Your task to perform on an android device: Open Youtube and go to "Your channel" Image 0: 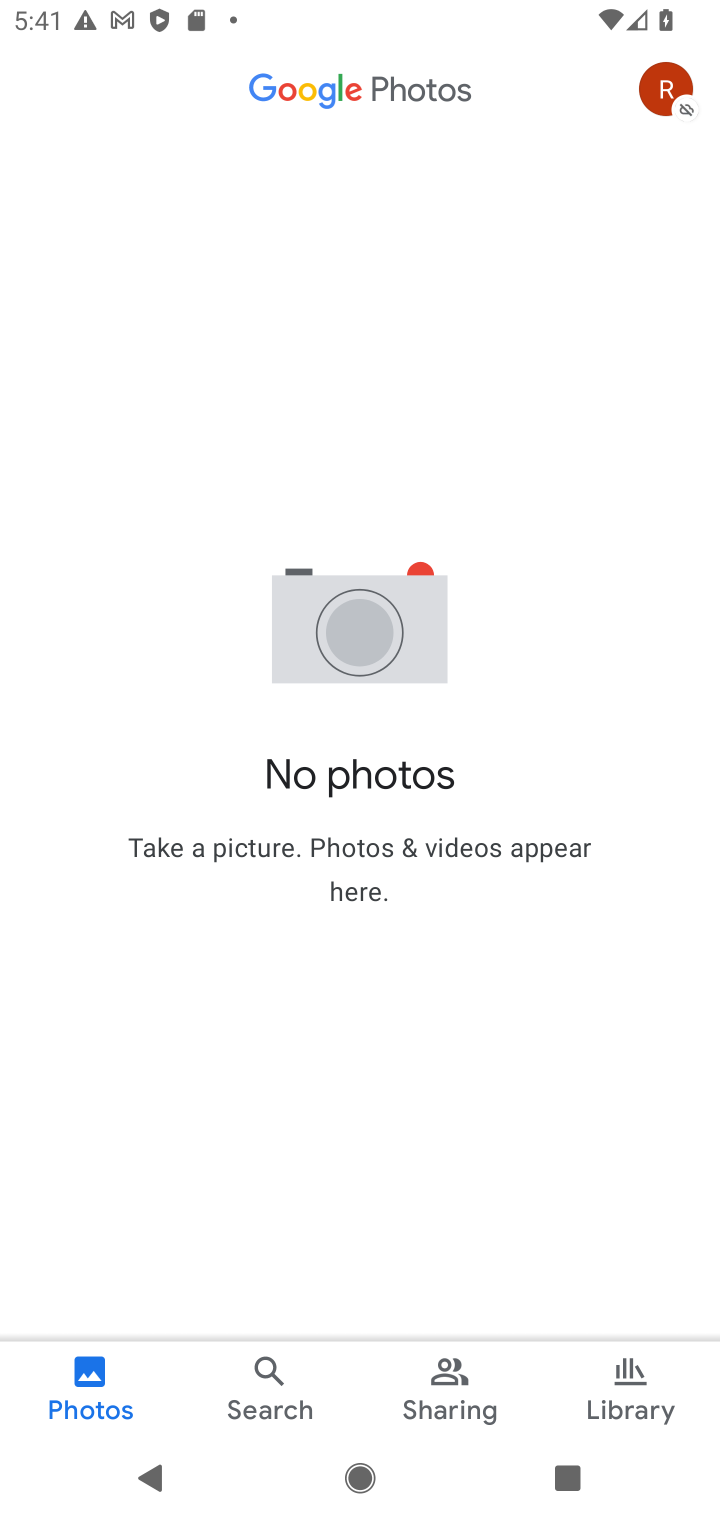
Step 0: press home button
Your task to perform on an android device: Open Youtube and go to "Your channel" Image 1: 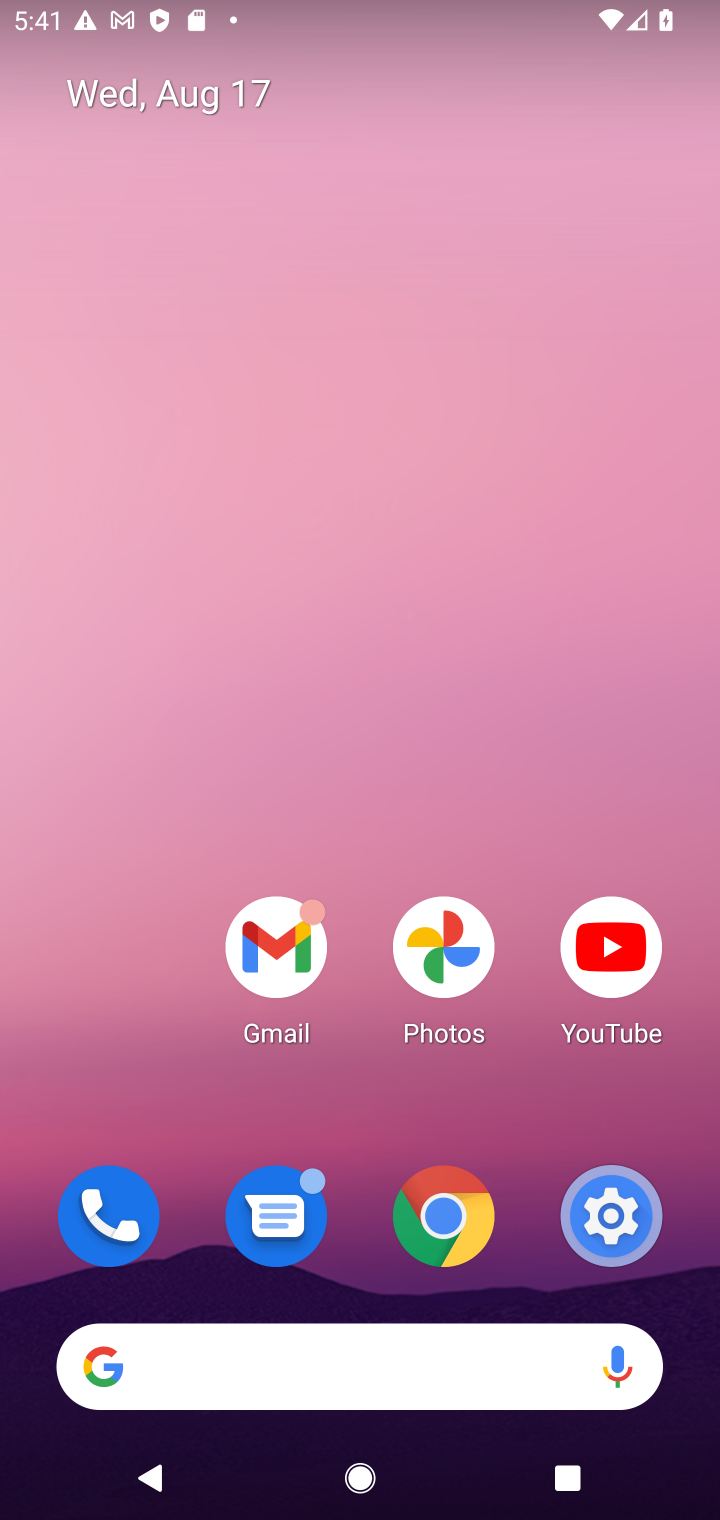
Step 1: click (615, 898)
Your task to perform on an android device: Open Youtube and go to "Your channel" Image 2: 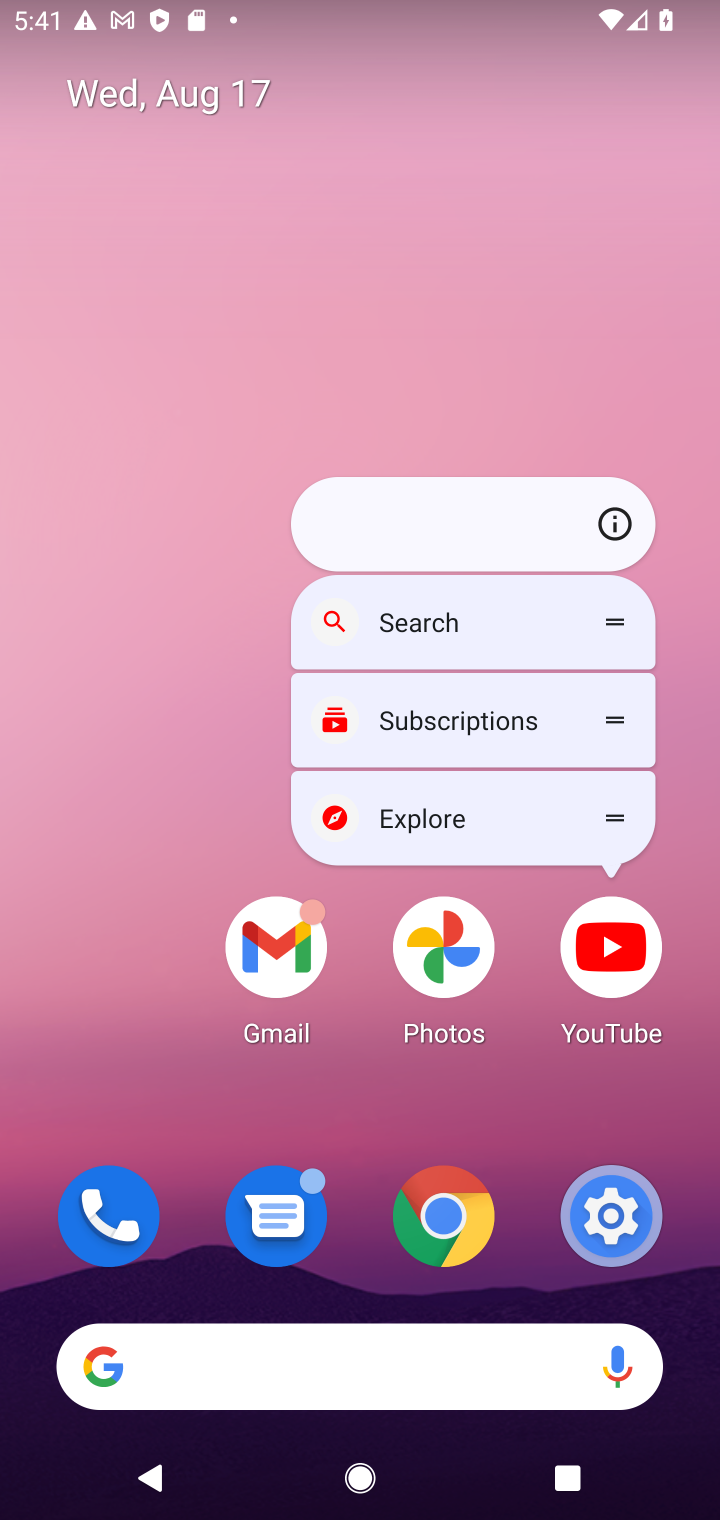
Step 2: click (615, 930)
Your task to perform on an android device: Open Youtube and go to "Your channel" Image 3: 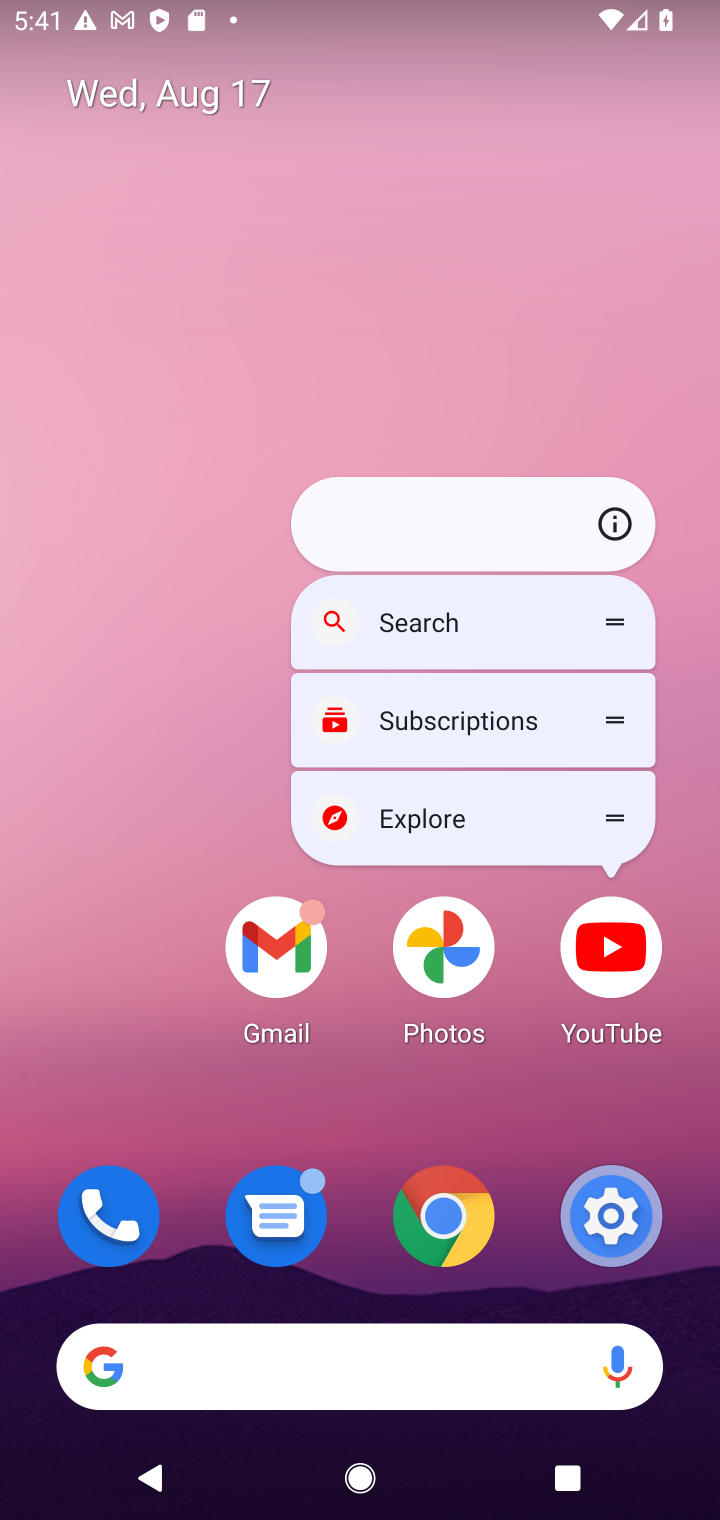
Step 3: click (623, 951)
Your task to perform on an android device: Open Youtube and go to "Your channel" Image 4: 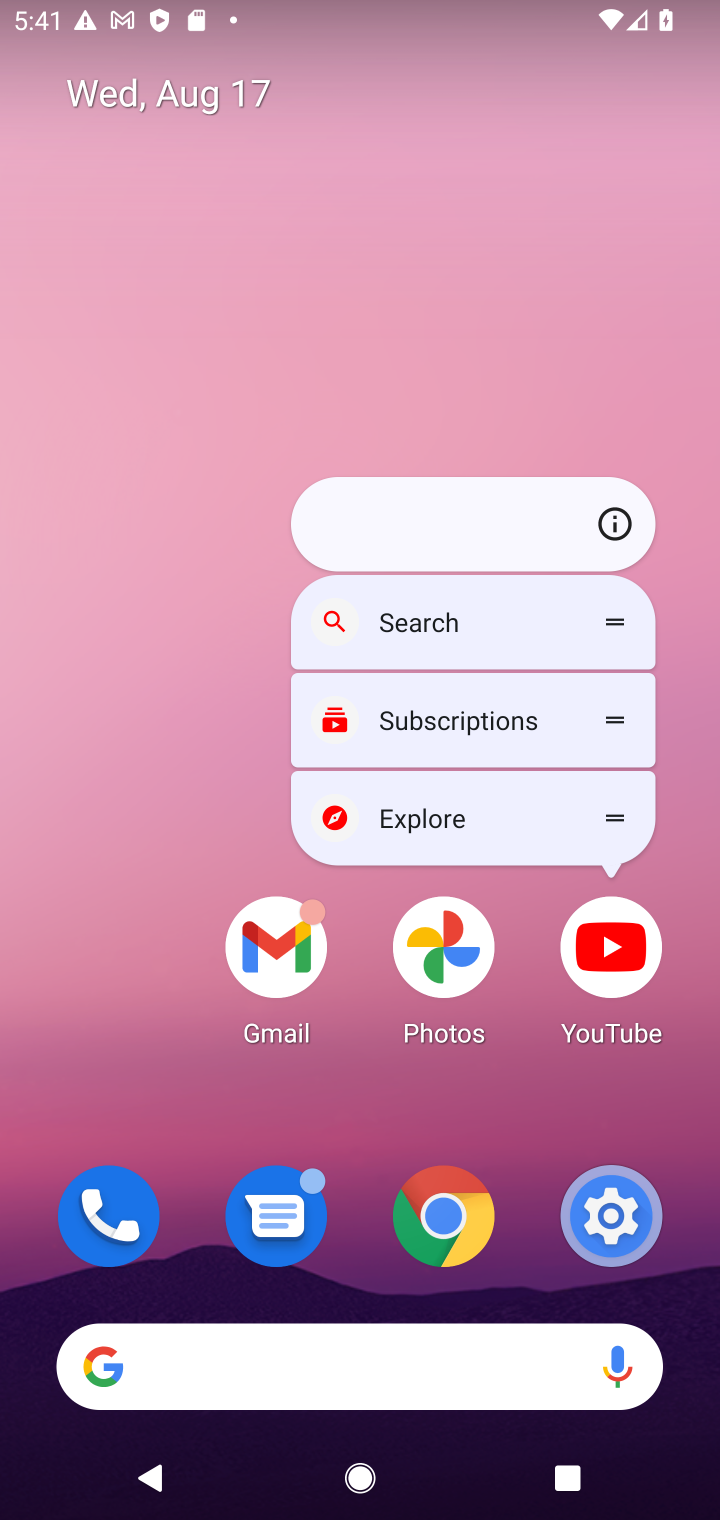
Step 4: click (623, 951)
Your task to perform on an android device: Open Youtube and go to "Your channel" Image 5: 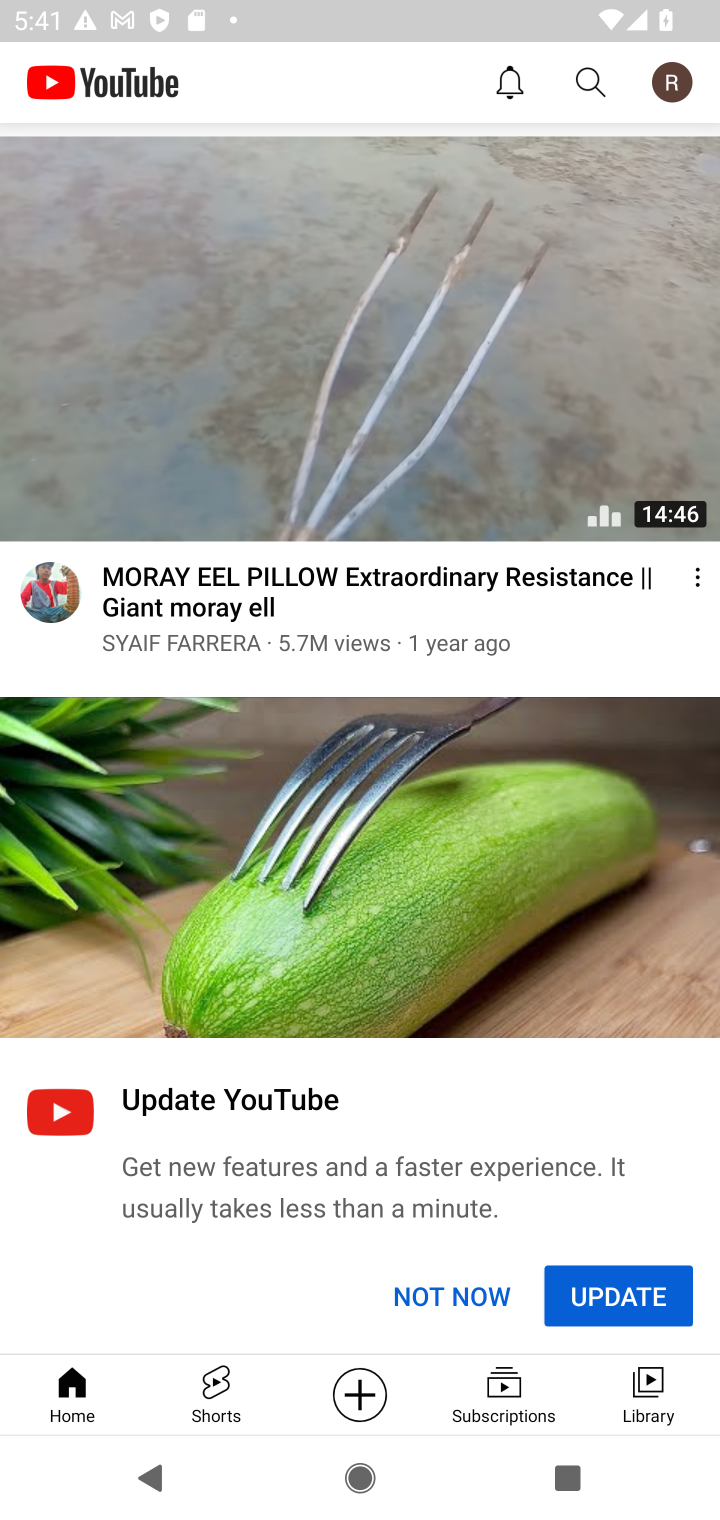
Step 5: click (672, 100)
Your task to perform on an android device: Open Youtube and go to "Your channel" Image 6: 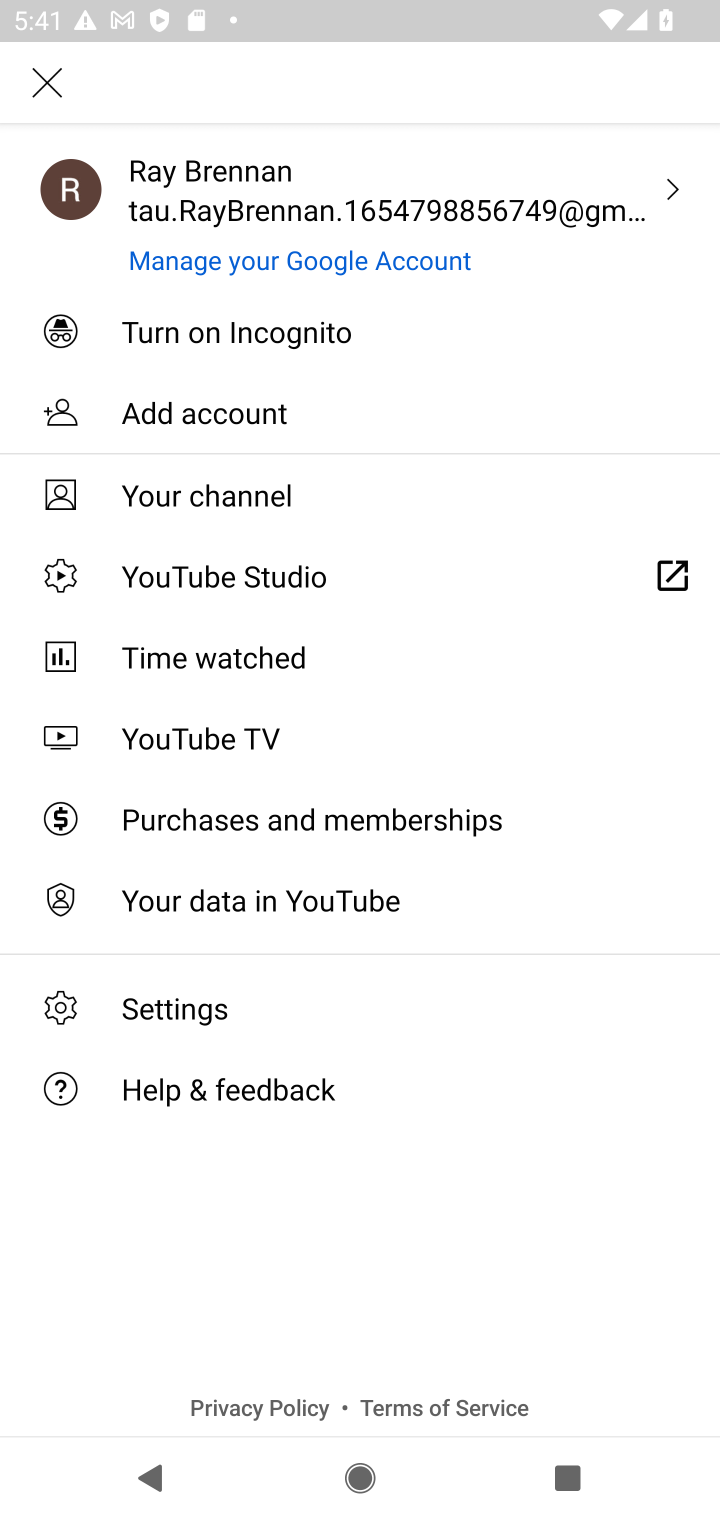
Step 6: click (669, 79)
Your task to perform on an android device: Open Youtube and go to "Your channel" Image 7: 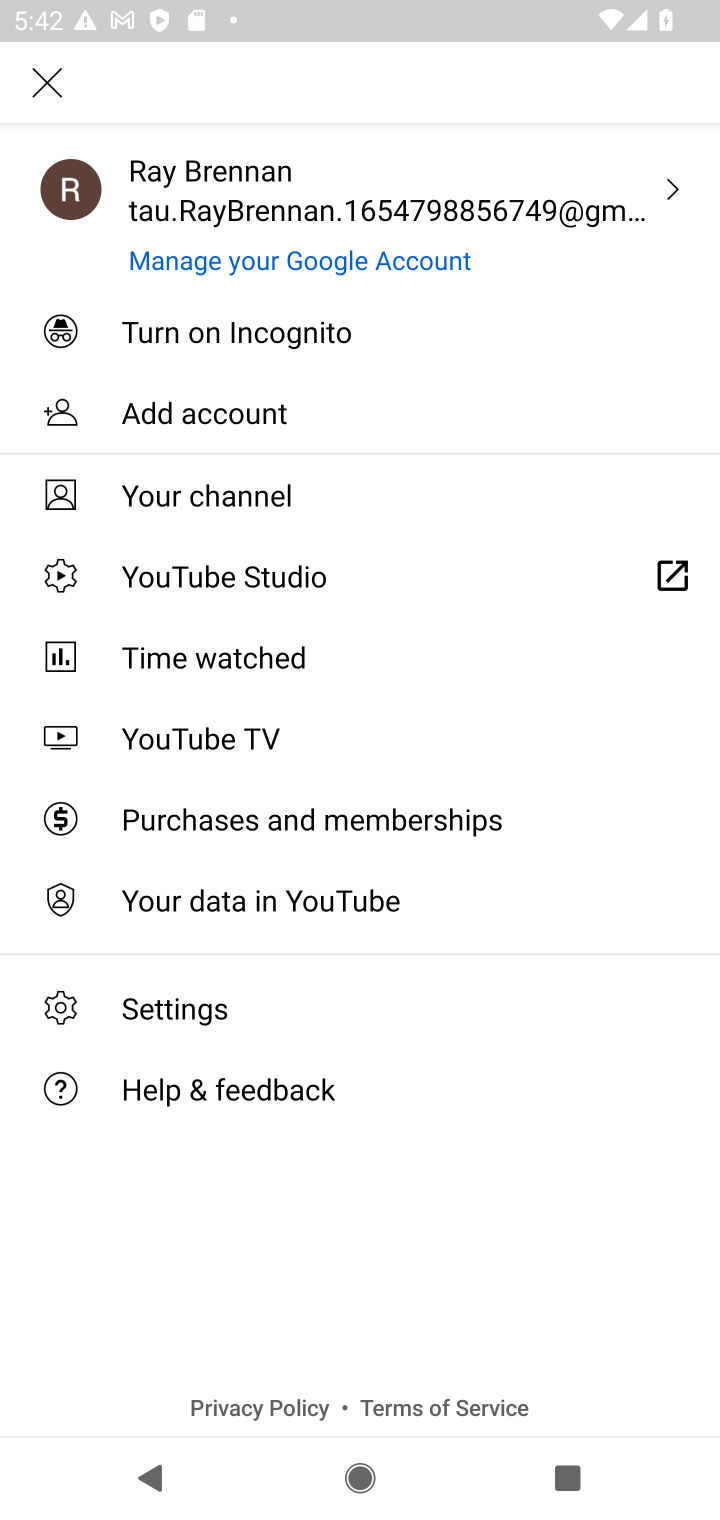
Step 7: click (189, 493)
Your task to perform on an android device: Open Youtube and go to "Your channel" Image 8: 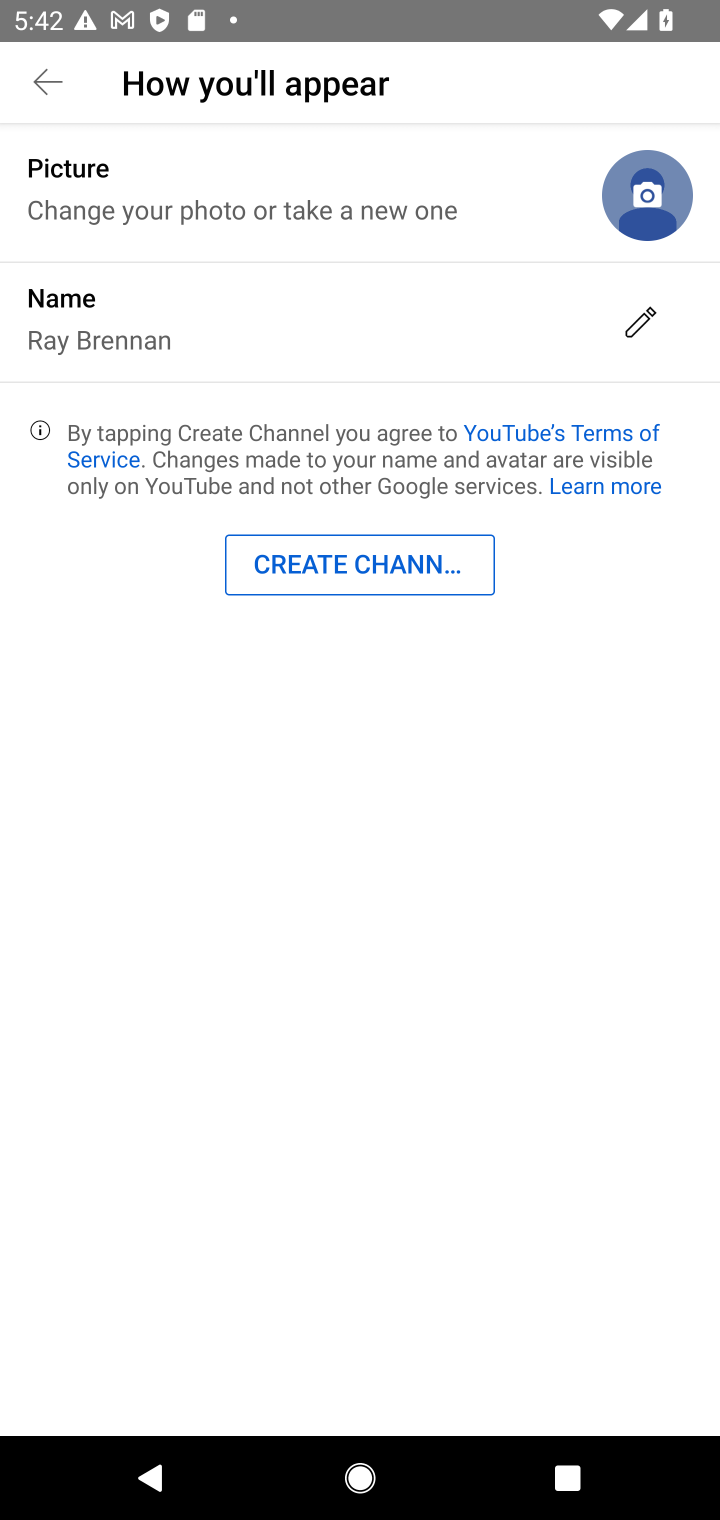
Step 8: task complete